Your task to perform on an android device: turn vacation reply on in the gmail app Image 0: 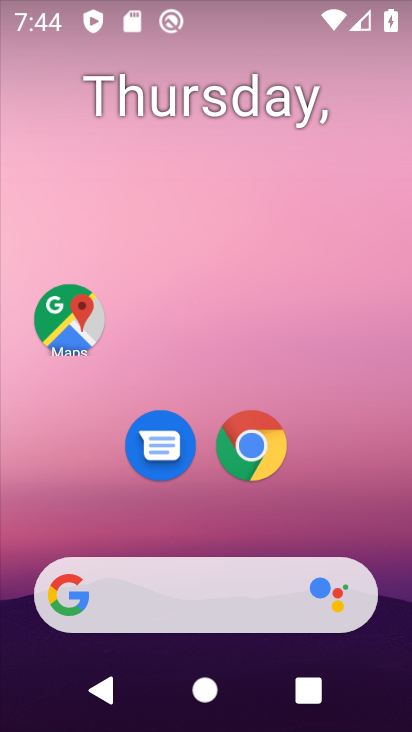
Step 0: drag from (227, 493) to (217, 88)
Your task to perform on an android device: turn vacation reply on in the gmail app Image 1: 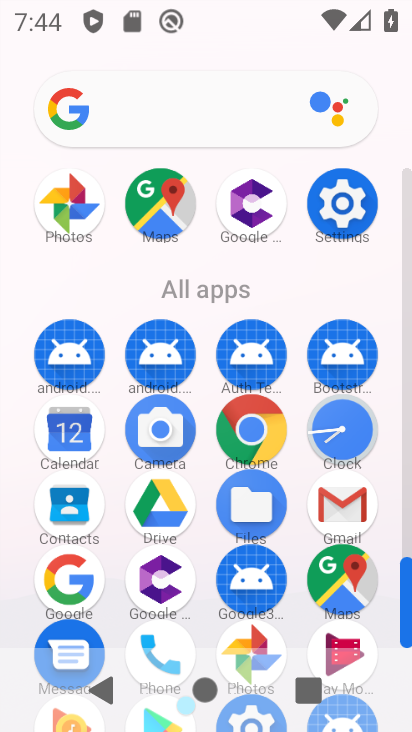
Step 1: click (349, 503)
Your task to perform on an android device: turn vacation reply on in the gmail app Image 2: 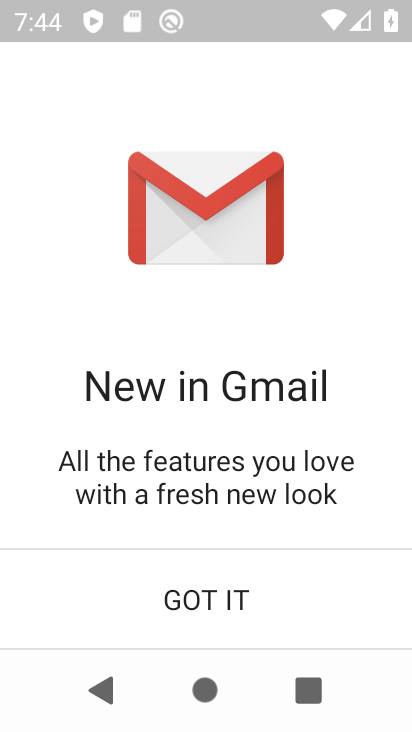
Step 2: click (185, 612)
Your task to perform on an android device: turn vacation reply on in the gmail app Image 3: 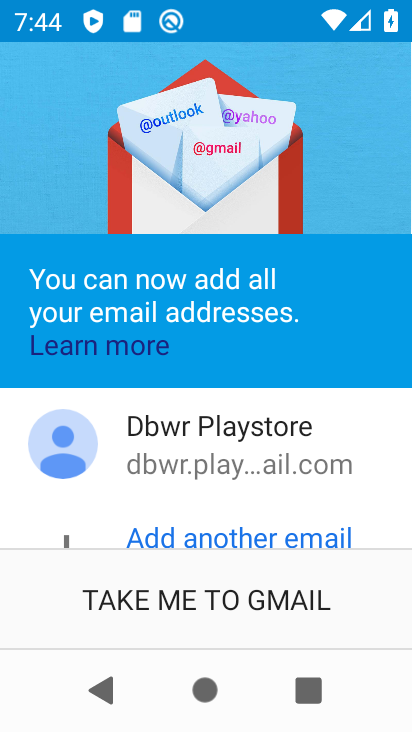
Step 3: click (203, 598)
Your task to perform on an android device: turn vacation reply on in the gmail app Image 4: 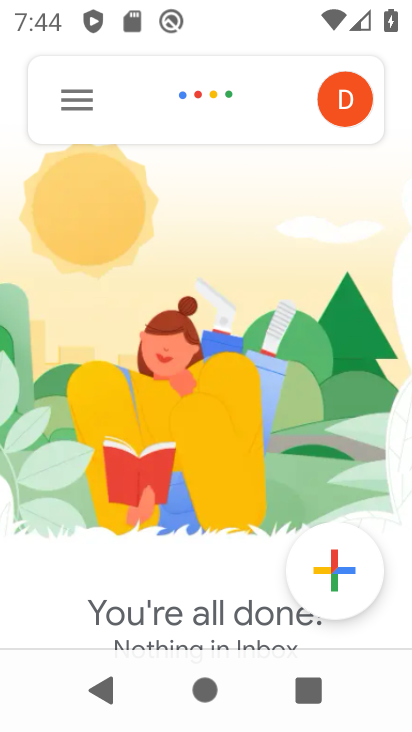
Step 4: click (65, 99)
Your task to perform on an android device: turn vacation reply on in the gmail app Image 5: 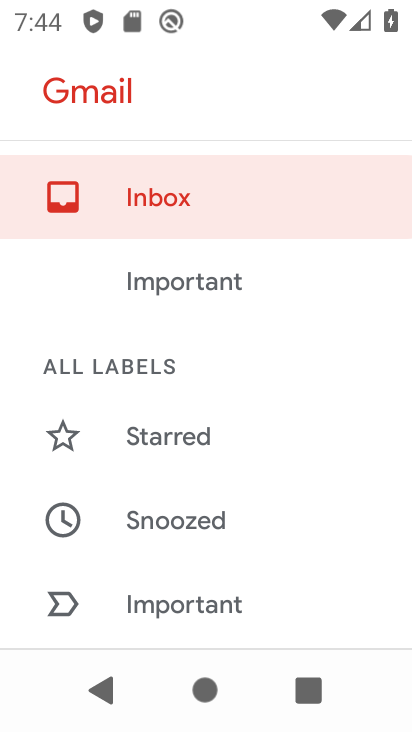
Step 5: drag from (253, 559) to (325, 6)
Your task to perform on an android device: turn vacation reply on in the gmail app Image 6: 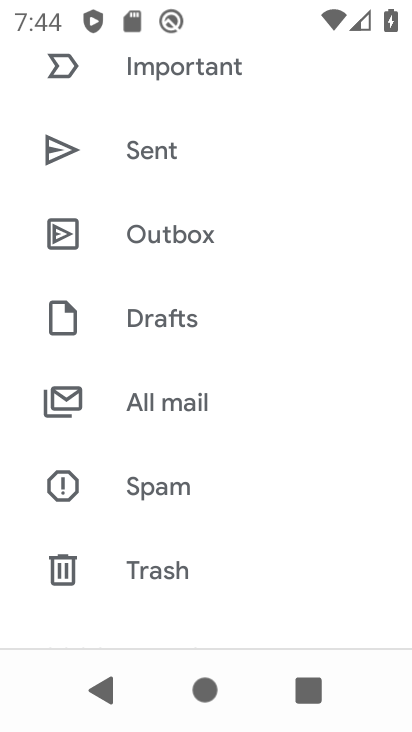
Step 6: drag from (187, 588) to (189, 37)
Your task to perform on an android device: turn vacation reply on in the gmail app Image 7: 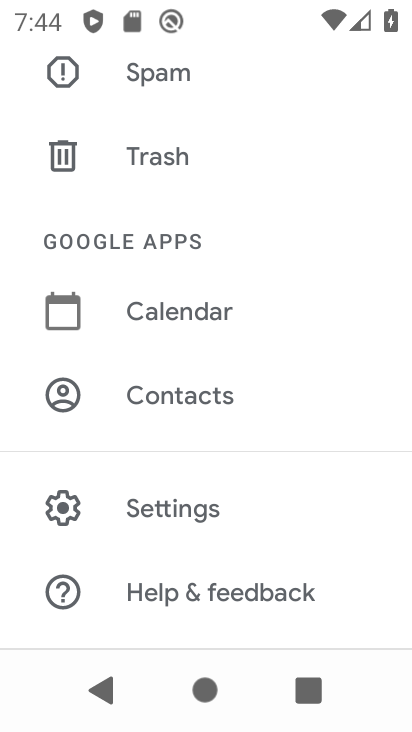
Step 7: click (183, 507)
Your task to perform on an android device: turn vacation reply on in the gmail app Image 8: 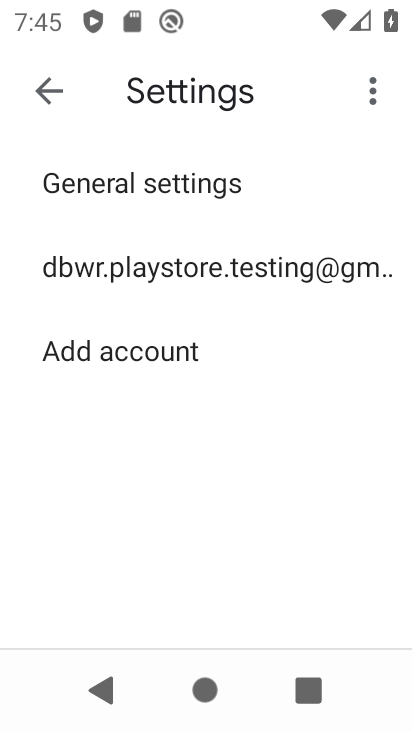
Step 8: click (163, 274)
Your task to perform on an android device: turn vacation reply on in the gmail app Image 9: 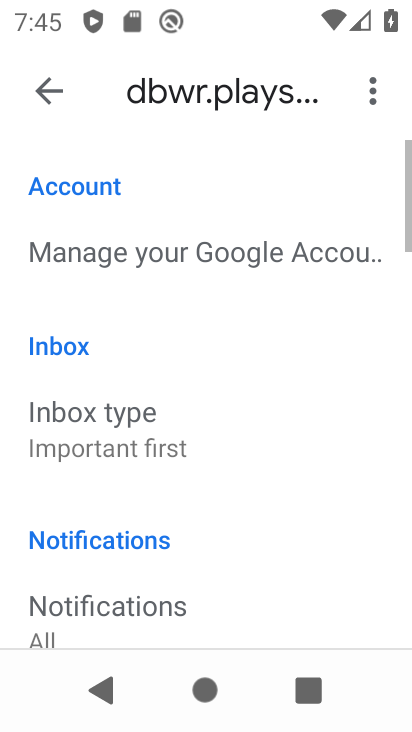
Step 9: drag from (220, 571) to (238, 190)
Your task to perform on an android device: turn vacation reply on in the gmail app Image 10: 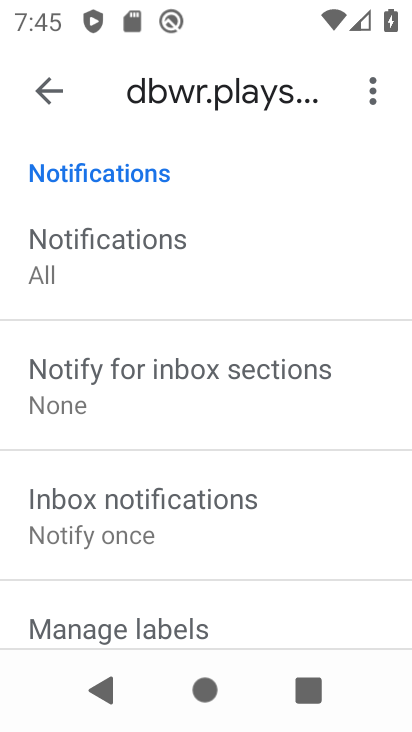
Step 10: drag from (182, 572) to (225, 205)
Your task to perform on an android device: turn vacation reply on in the gmail app Image 11: 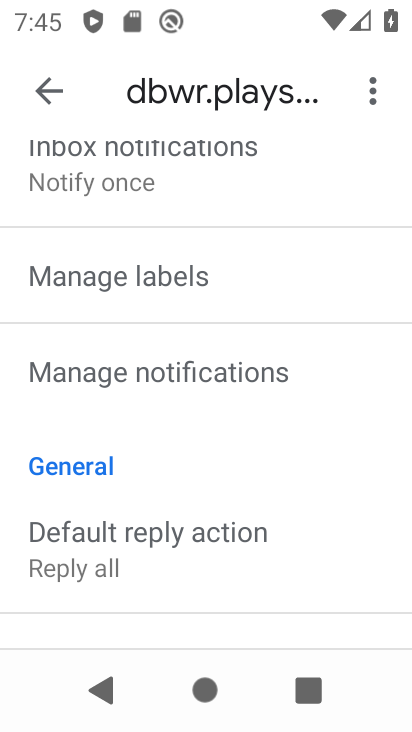
Step 11: drag from (184, 605) to (276, 148)
Your task to perform on an android device: turn vacation reply on in the gmail app Image 12: 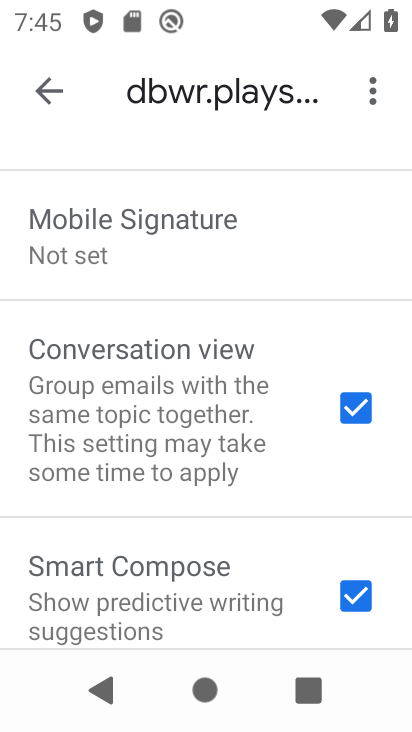
Step 12: drag from (206, 575) to (263, 183)
Your task to perform on an android device: turn vacation reply on in the gmail app Image 13: 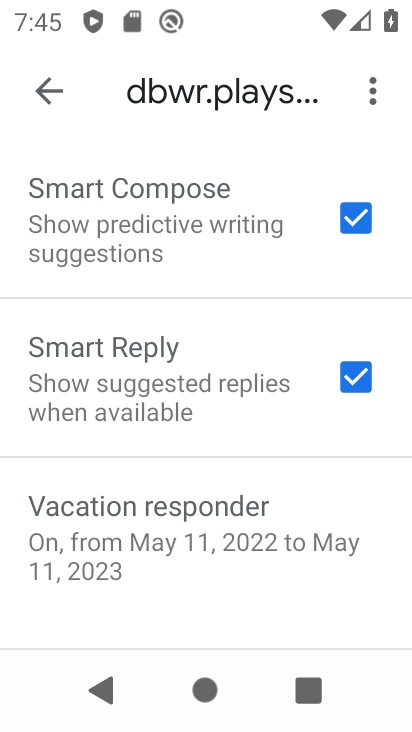
Step 13: click (163, 548)
Your task to perform on an android device: turn vacation reply on in the gmail app Image 14: 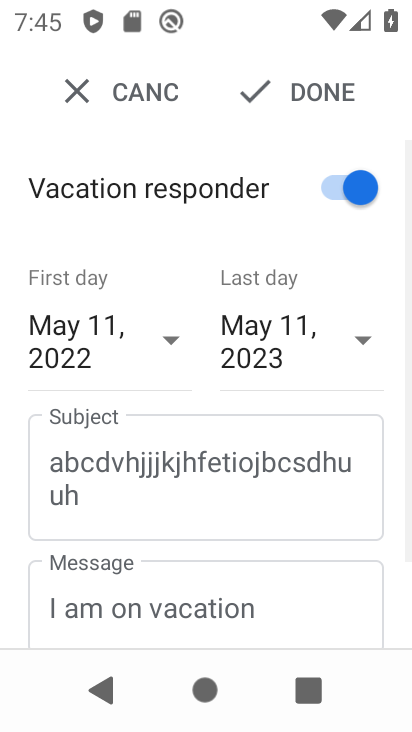
Step 14: click (301, 82)
Your task to perform on an android device: turn vacation reply on in the gmail app Image 15: 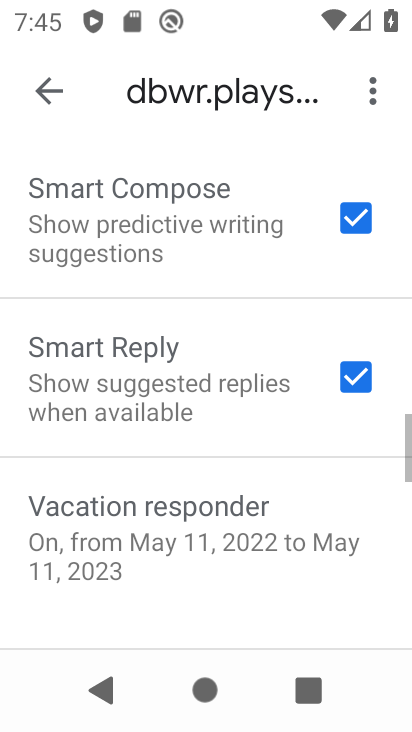
Step 15: task complete